Your task to perform on an android device: turn off improve location accuracy Image 0: 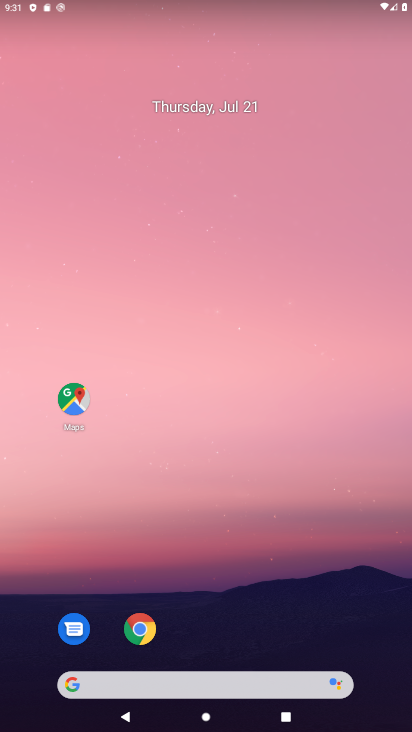
Step 0: drag from (226, 663) to (265, 258)
Your task to perform on an android device: turn off improve location accuracy Image 1: 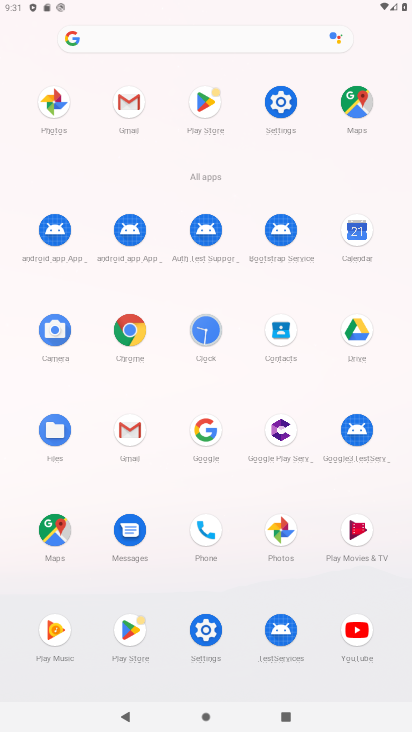
Step 1: click (284, 120)
Your task to perform on an android device: turn off improve location accuracy Image 2: 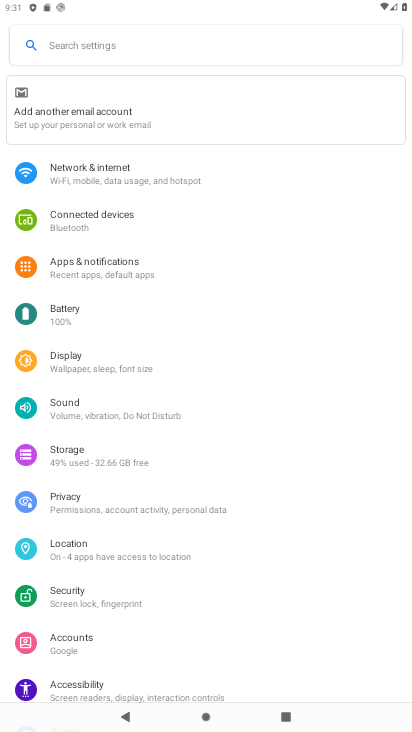
Step 2: click (142, 541)
Your task to perform on an android device: turn off improve location accuracy Image 3: 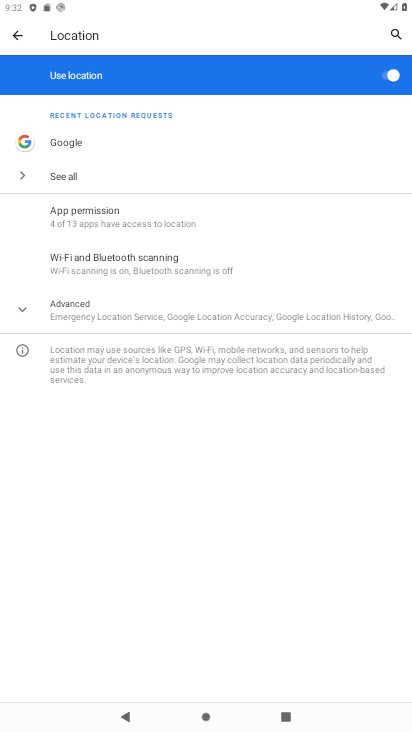
Step 3: click (148, 325)
Your task to perform on an android device: turn off improve location accuracy Image 4: 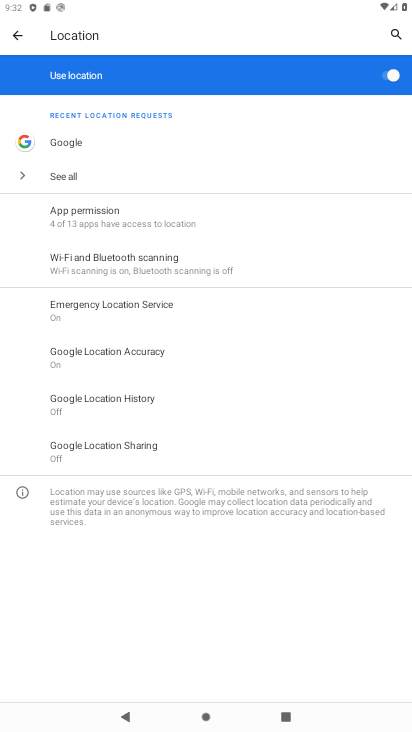
Step 4: click (128, 352)
Your task to perform on an android device: turn off improve location accuracy Image 5: 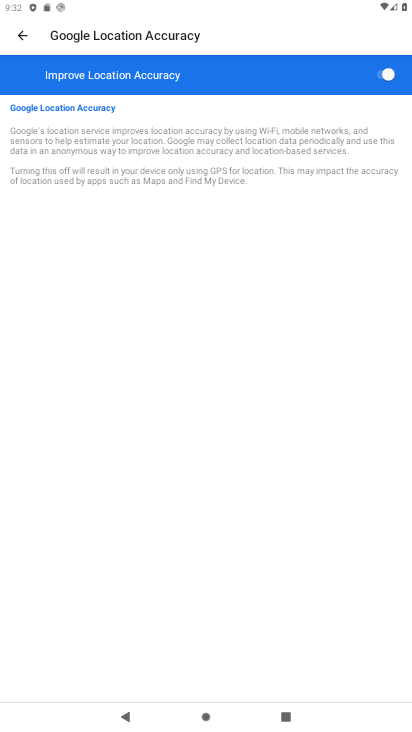
Step 5: click (387, 85)
Your task to perform on an android device: turn off improve location accuracy Image 6: 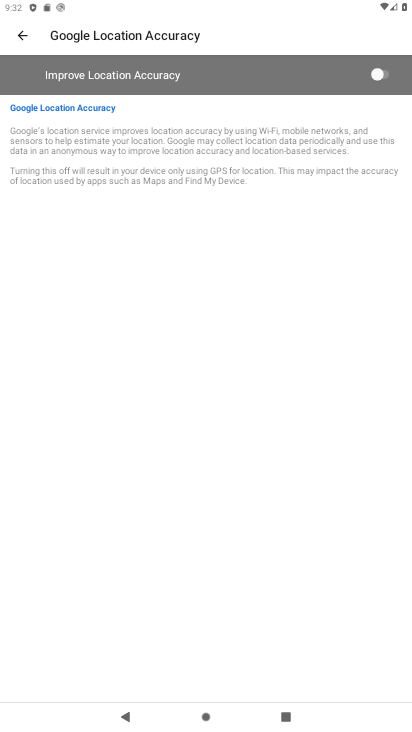
Step 6: task complete